Your task to perform on an android device: set default search engine in the chrome app Image 0: 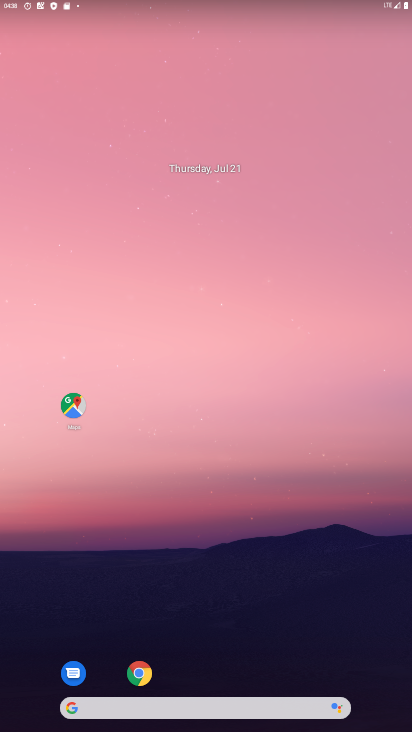
Step 0: drag from (143, 598) to (234, 142)
Your task to perform on an android device: set default search engine in the chrome app Image 1: 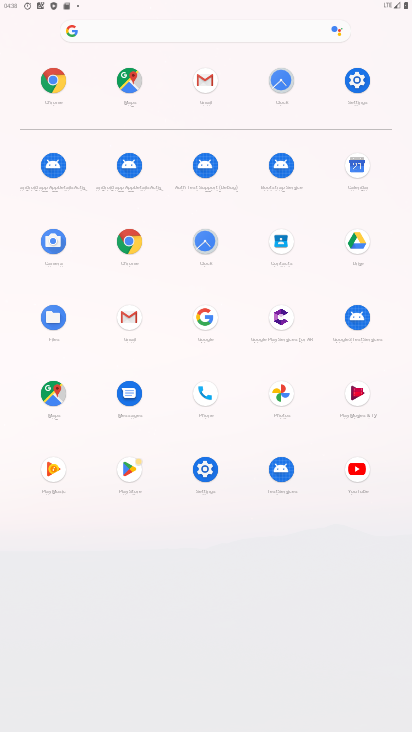
Step 1: click (134, 244)
Your task to perform on an android device: set default search engine in the chrome app Image 2: 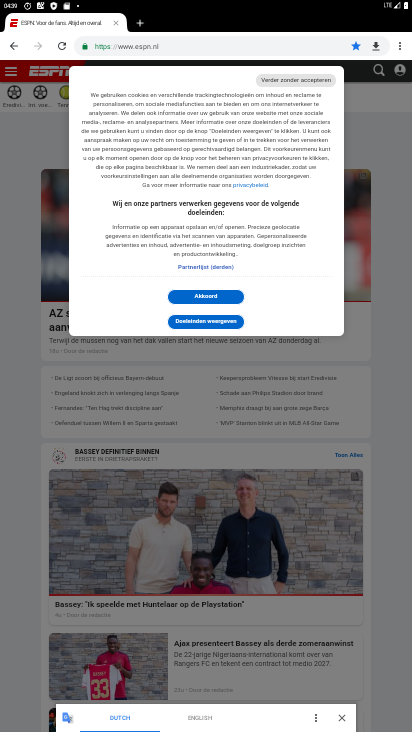
Step 2: drag from (399, 50) to (306, 299)
Your task to perform on an android device: set default search engine in the chrome app Image 3: 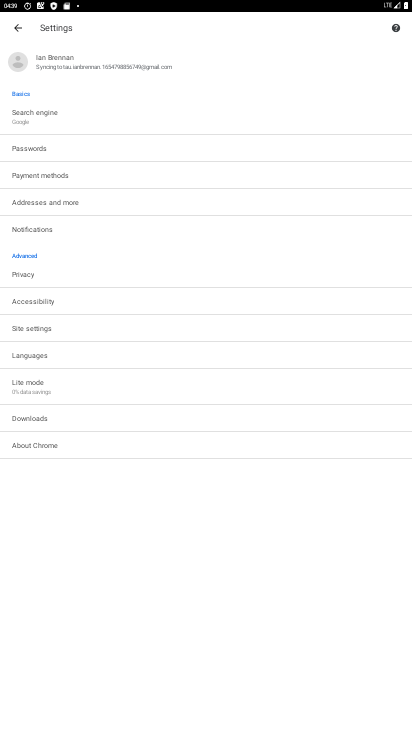
Step 3: click (46, 118)
Your task to perform on an android device: set default search engine in the chrome app Image 4: 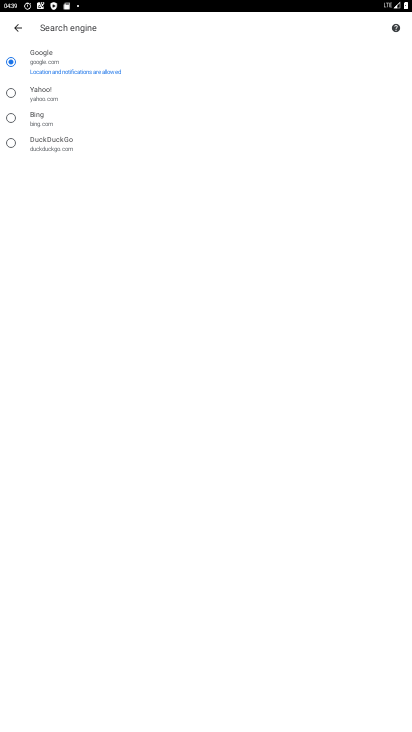
Step 4: task complete